Your task to perform on an android device: Open the calendar app, open the side menu, and click the "Day" option Image 0: 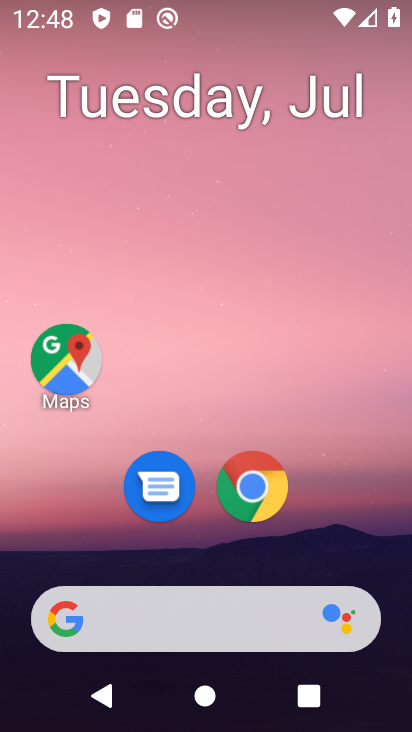
Step 0: drag from (349, 559) to (366, 123)
Your task to perform on an android device: Open the calendar app, open the side menu, and click the "Day" option Image 1: 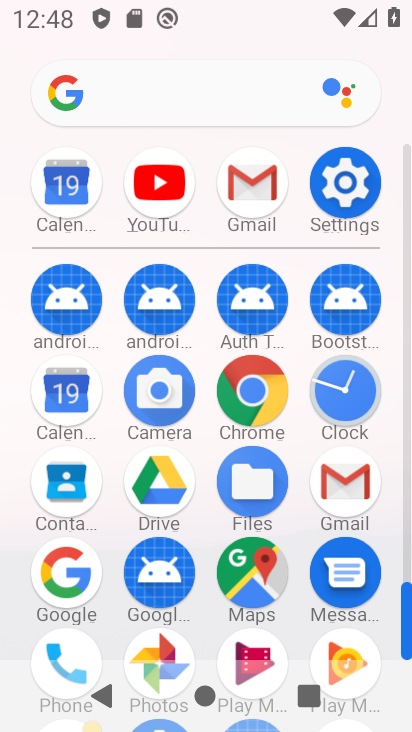
Step 1: click (75, 396)
Your task to perform on an android device: Open the calendar app, open the side menu, and click the "Day" option Image 2: 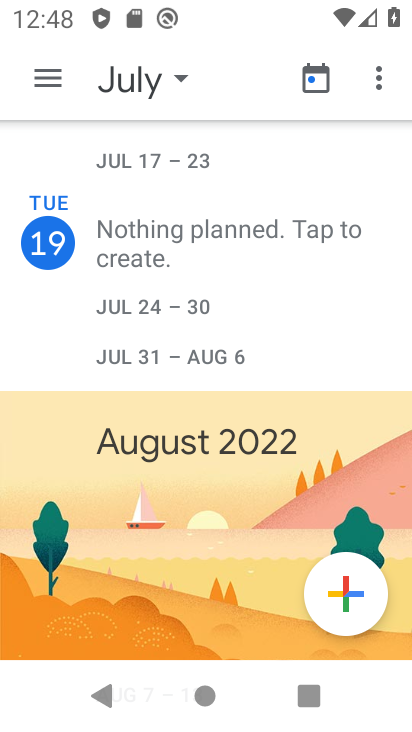
Step 2: click (47, 83)
Your task to perform on an android device: Open the calendar app, open the side menu, and click the "Day" option Image 3: 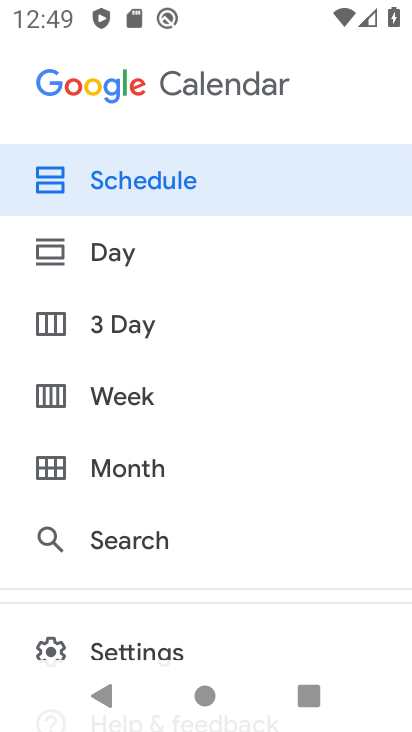
Step 3: click (127, 256)
Your task to perform on an android device: Open the calendar app, open the side menu, and click the "Day" option Image 4: 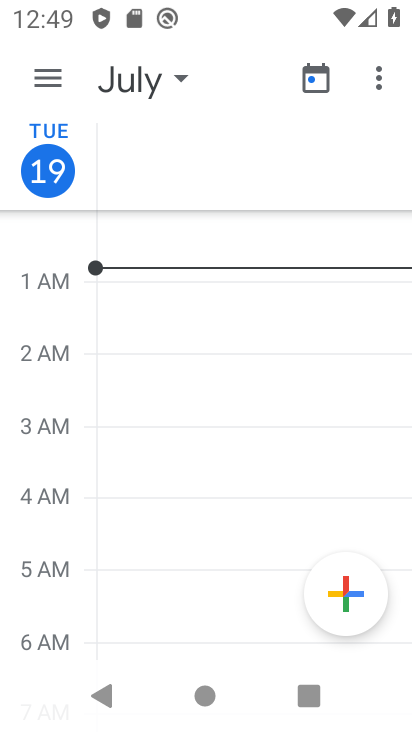
Step 4: task complete